Your task to perform on an android device: toggle location history Image 0: 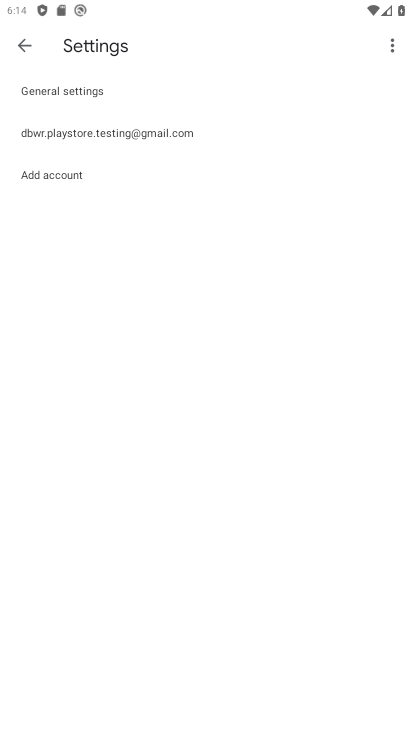
Step 0: press home button
Your task to perform on an android device: toggle location history Image 1: 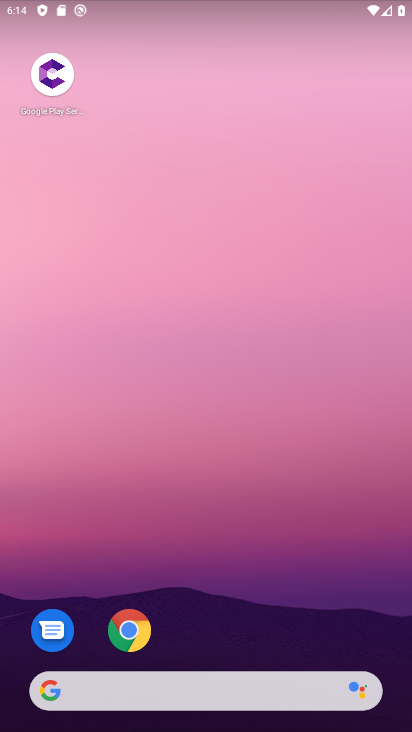
Step 1: click (170, 11)
Your task to perform on an android device: toggle location history Image 2: 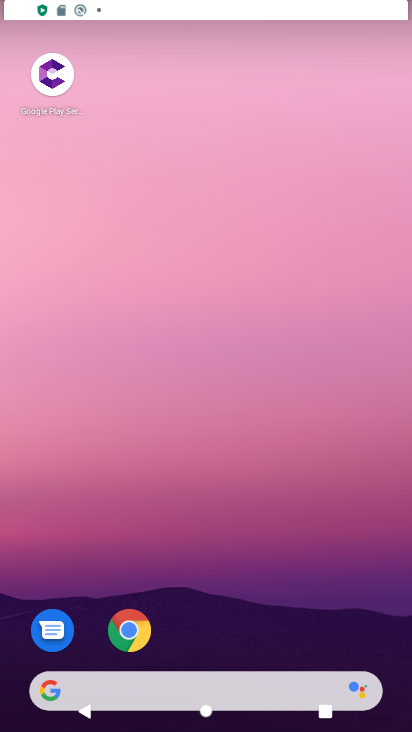
Step 2: drag from (246, 195) to (245, 118)
Your task to perform on an android device: toggle location history Image 3: 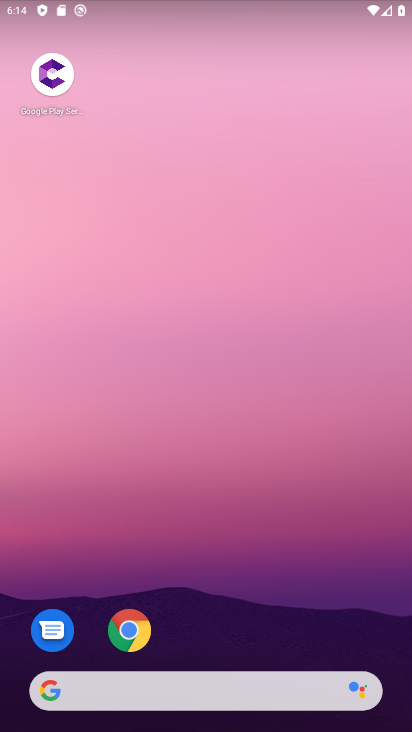
Step 3: drag from (227, 586) to (172, 6)
Your task to perform on an android device: toggle location history Image 4: 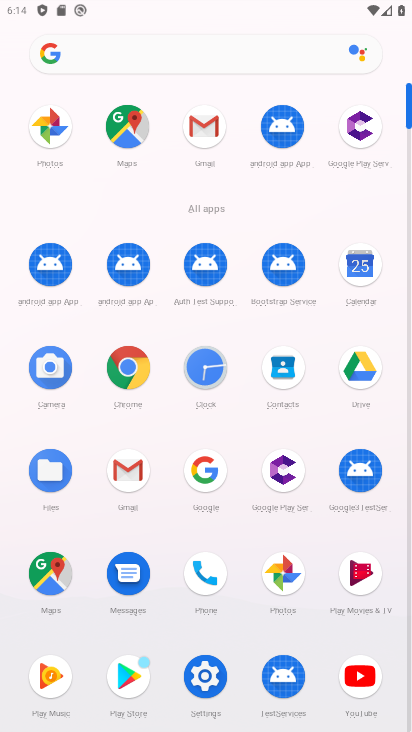
Step 4: click (209, 674)
Your task to perform on an android device: toggle location history Image 5: 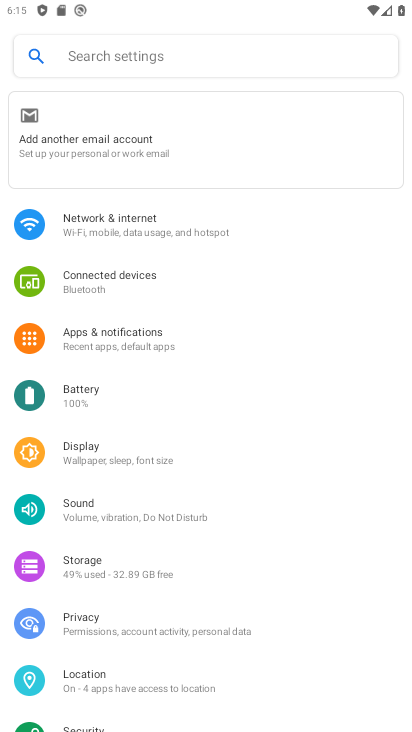
Step 5: click (115, 676)
Your task to perform on an android device: toggle location history Image 6: 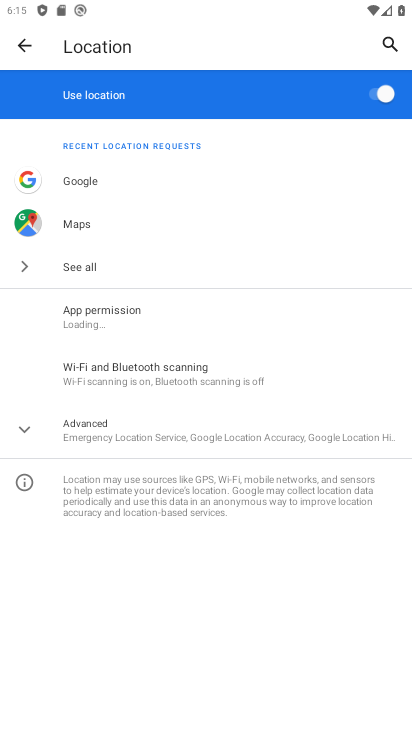
Step 6: click (374, 87)
Your task to perform on an android device: toggle location history Image 7: 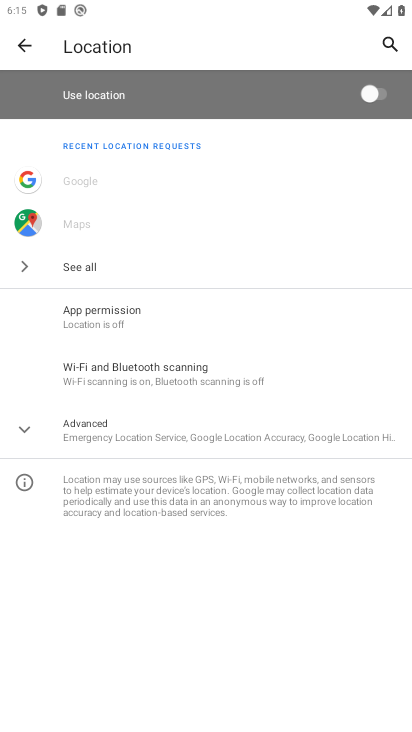
Step 7: click (374, 87)
Your task to perform on an android device: toggle location history Image 8: 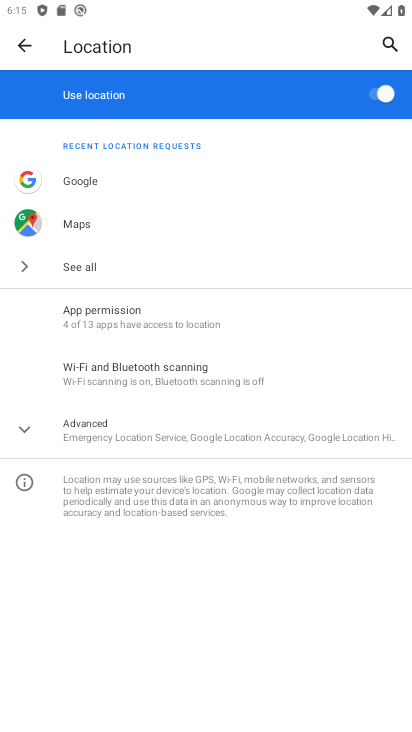
Step 8: click (154, 412)
Your task to perform on an android device: toggle location history Image 9: 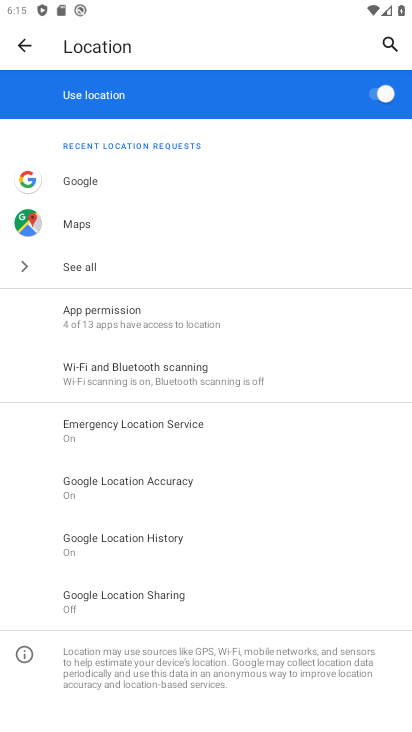
Step 9: click (160, 540)
Your task to perform on an android device: toggle location history Image 10: 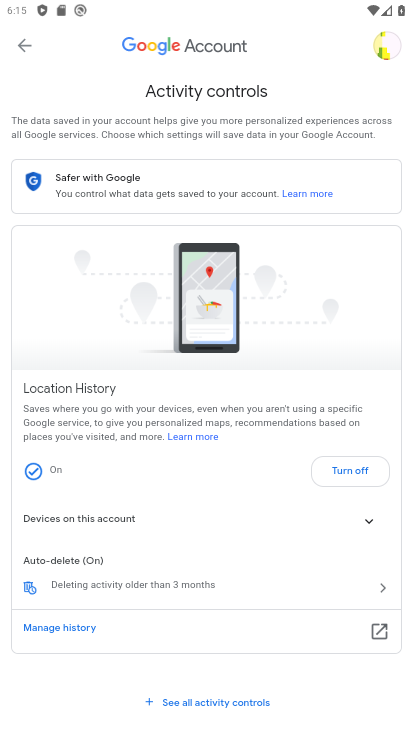
Step 10: click (338, 466)
Your task to perform on an android device: toggle location history Image 11: 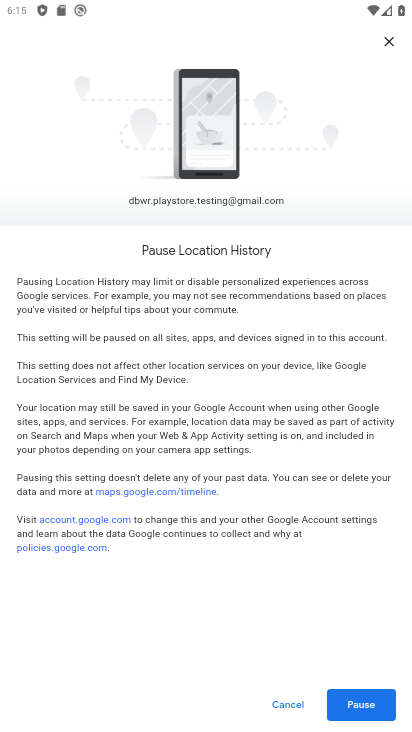
Step 11: click (366, 703)
Your task to perform on an android device: toggle location history Image 12: 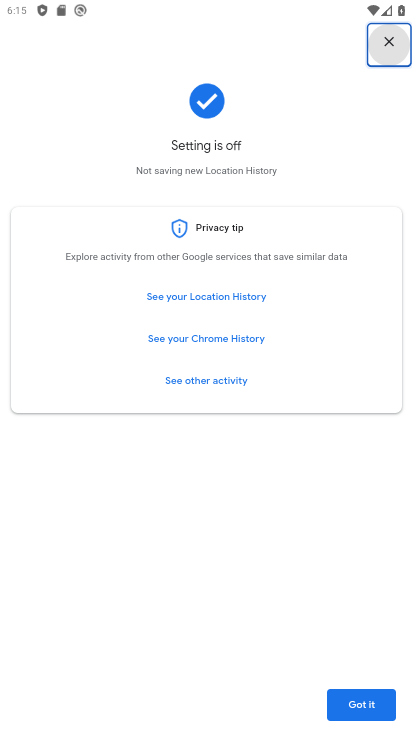
Step 12: click (360, 703)
Your task to perform on an android device: toggle location history Image 13: 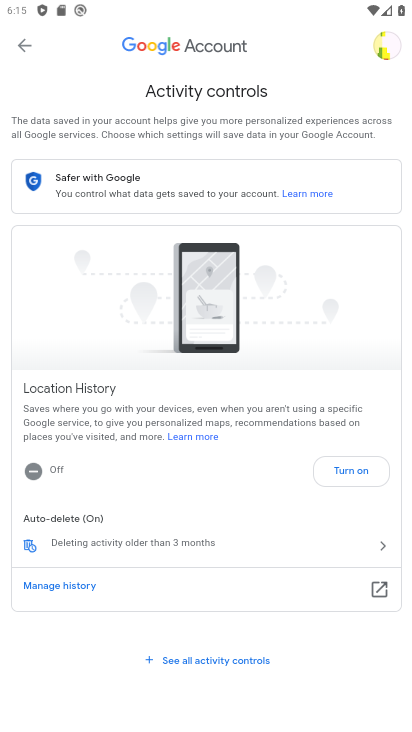
Step 13: task complete